Your task to perform on an android device: Open settings Image 0: 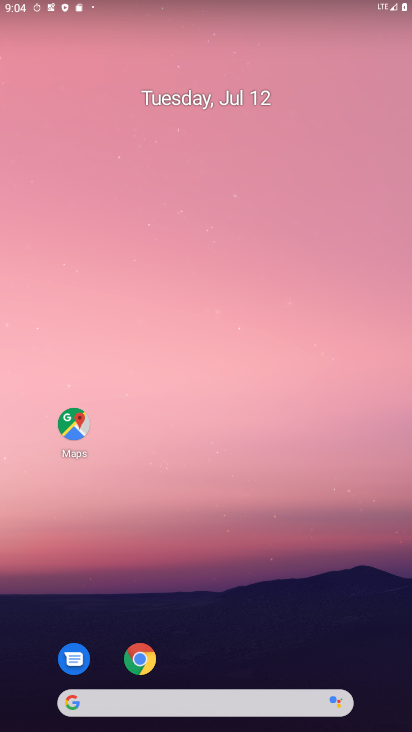
Step 0: drag from (374, 635) to (257, 114)
Your task to perform on an android device: Open settings Image 1: 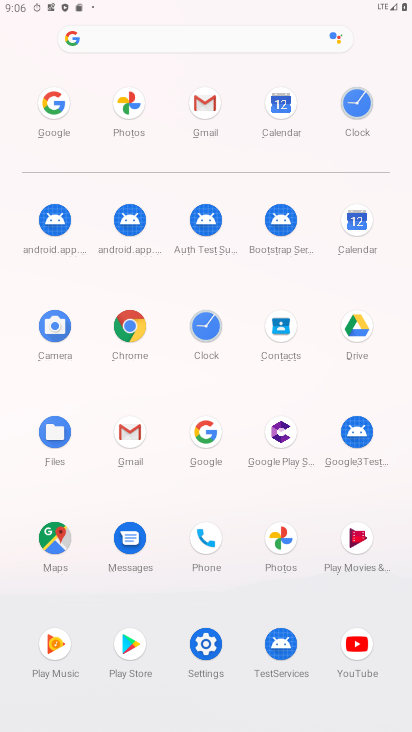
Step 1: click (190, 645)
Your task to perform on an android device: Open settings Image 2: 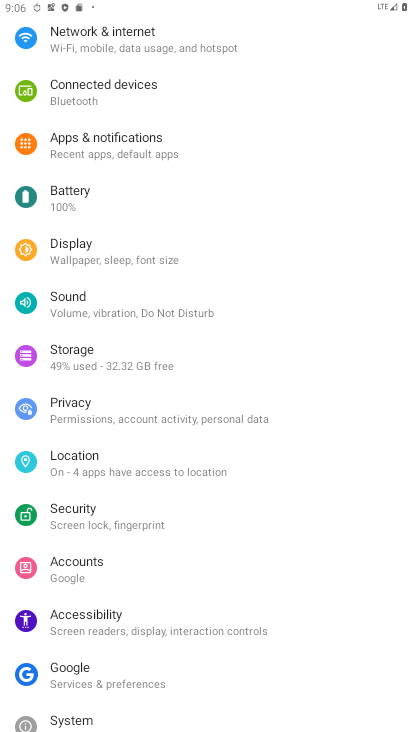
Step 2: press home button
Your task to perform on an android device: Open settings Image 3: 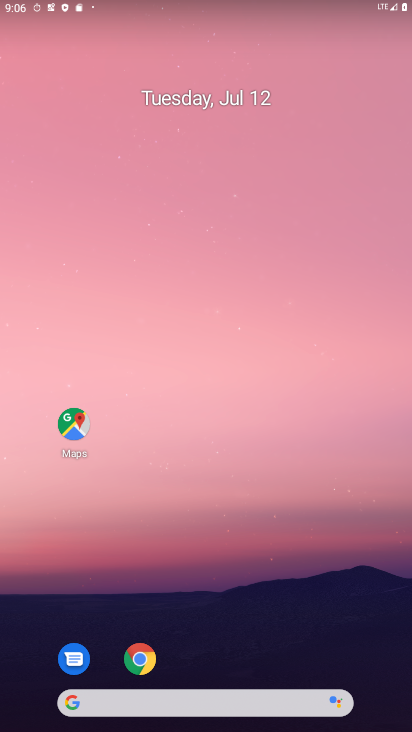
Step 3: drag from (375, 653) to (196, 47)
Your task to perform on an android device: Open settings Image 4: 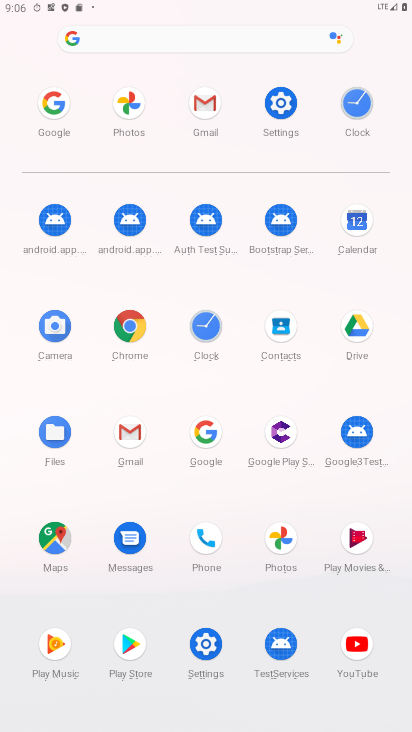
Step 4: click (201, 636)
Your task to perform on an android device: Open settings Image 5: 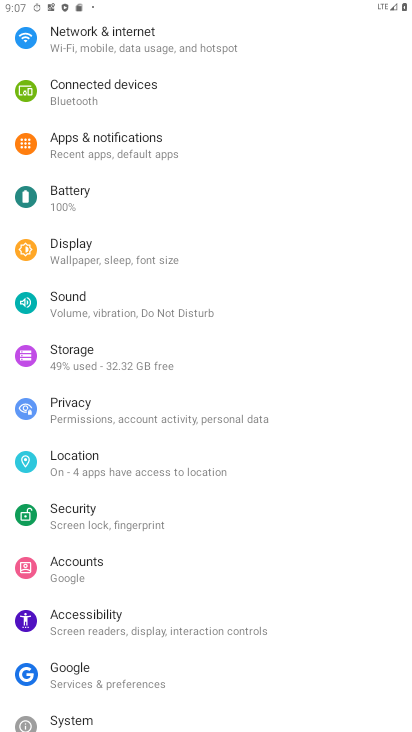
Step 5: task complete